Your task to perform on an android device: add a contact Image 0: 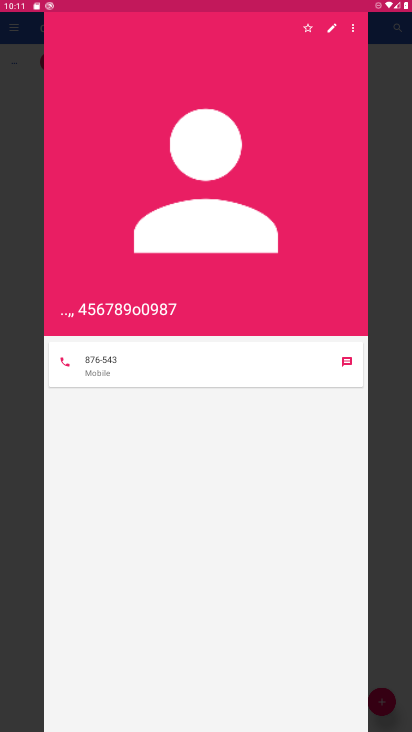
Step 0: press back button
Your task to perform on an android device: add a contact Image 1: 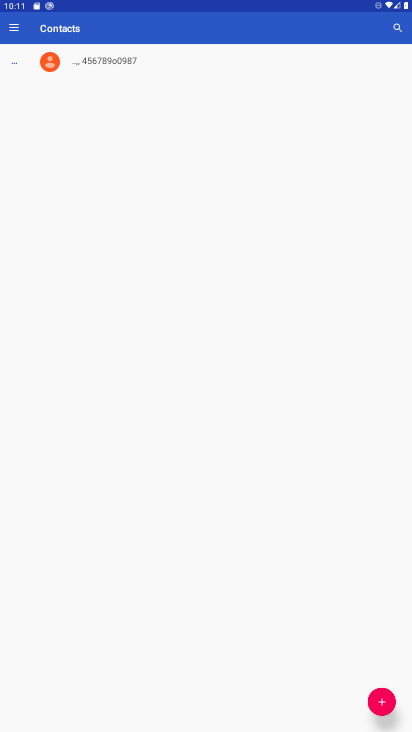
Step 1: click (384, 701)
Your task to perform on an android device: add a contact Image 2: 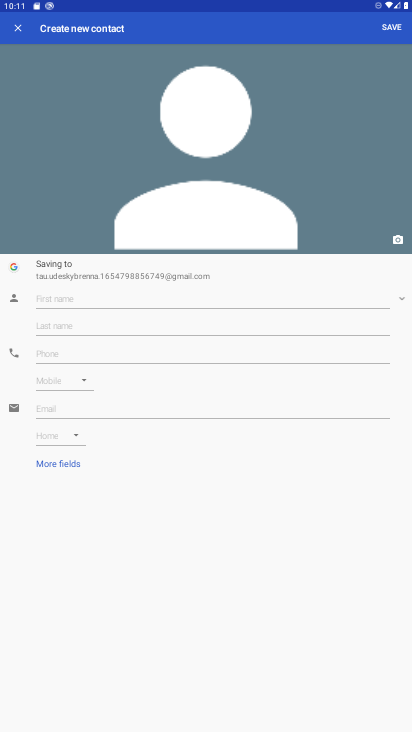
Step 2: type ","
Your task to perform on an android device: add a contact Image 3: 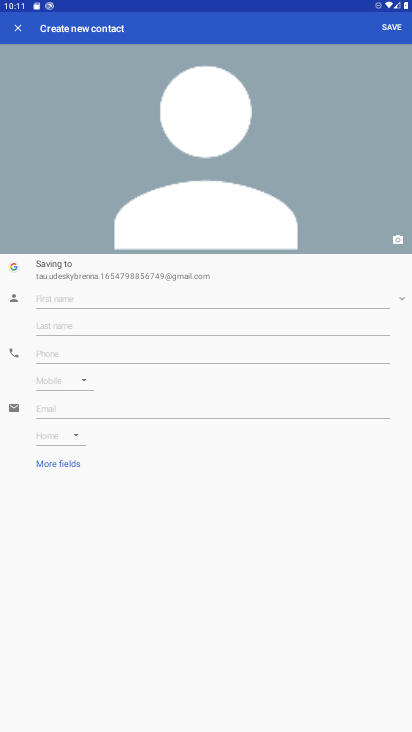
Step 3: click (59, 349)
Your task to perform on an android device: add a contact Image 4: 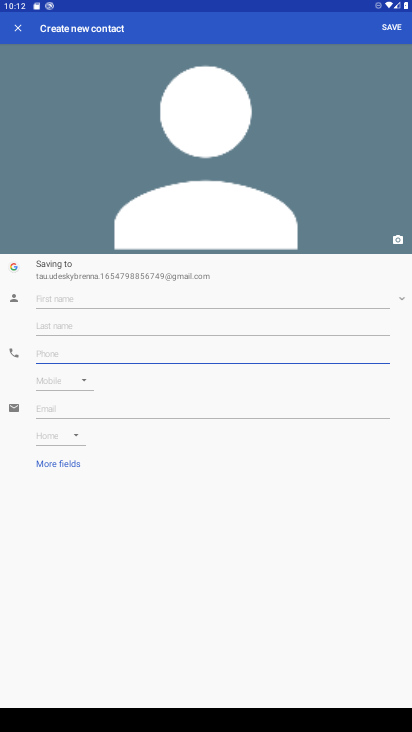
Step 4: type "987654323456"
Your task to perform on an android device: add a contact Image 5: 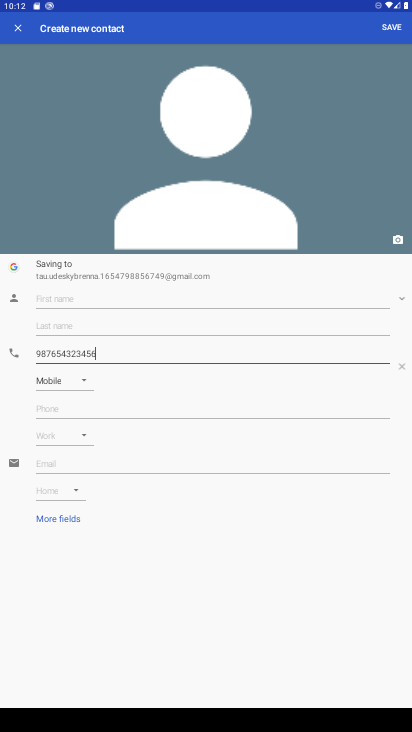
Step 5: click (393, 34)
Your task to perform on an android device: add a contact Image 6: 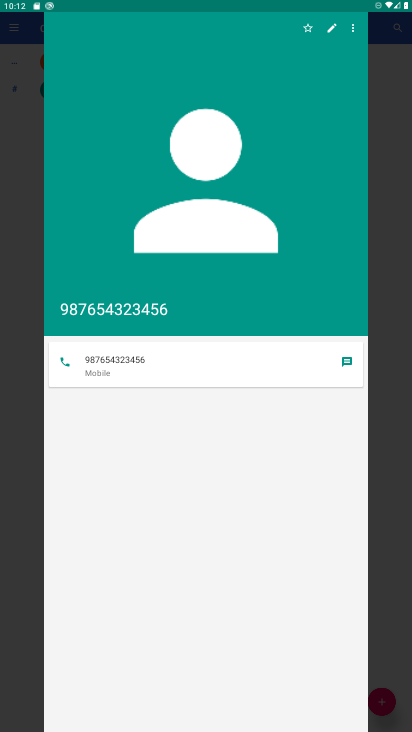
Step 6: task complete